Your task to perform on an android device: check the backup settings in the google photos Image 0: 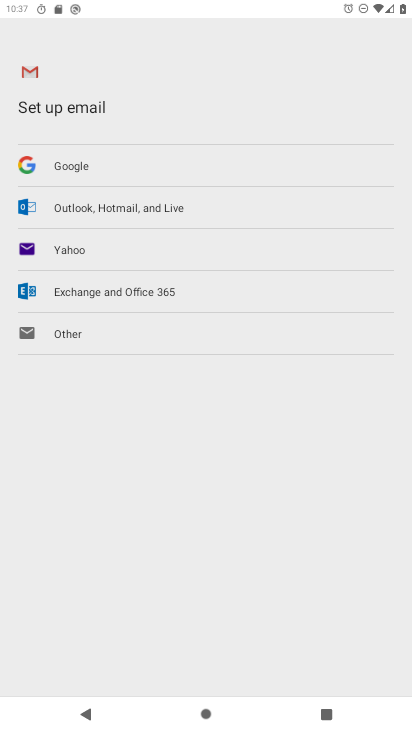
Step 0: press home button
Your task to perform on an android device: check the backup settings in the google photos Image 1: 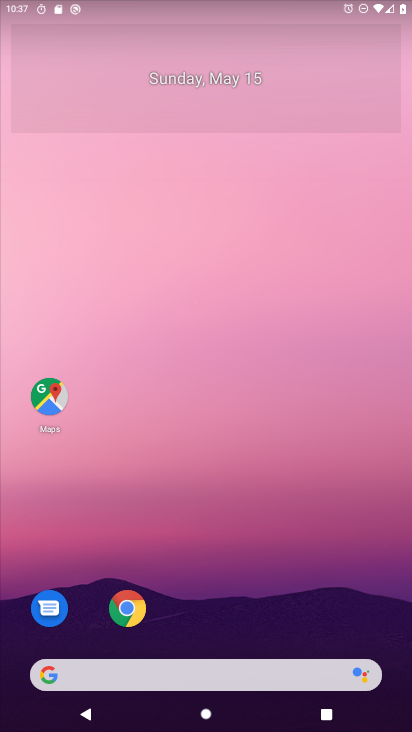
Step 1: drag from (334, 587) to (286, 220)
Your task to perform on an android device: check the backup settings in the google photos Image 2: 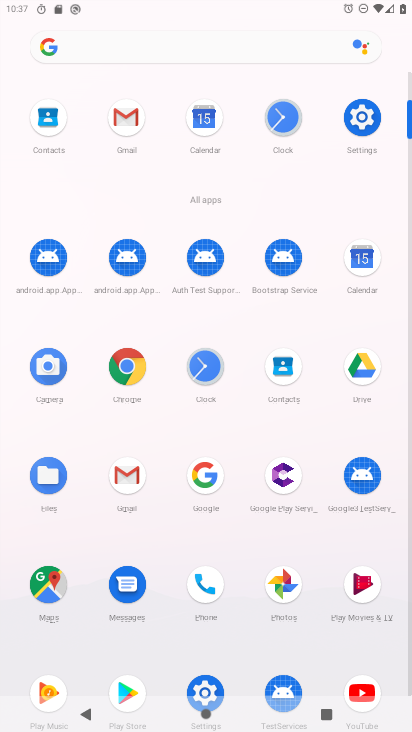
Step 2: click (277, 589)
Your task to perform on an android device: check the backup settings in the google photos Image 3: 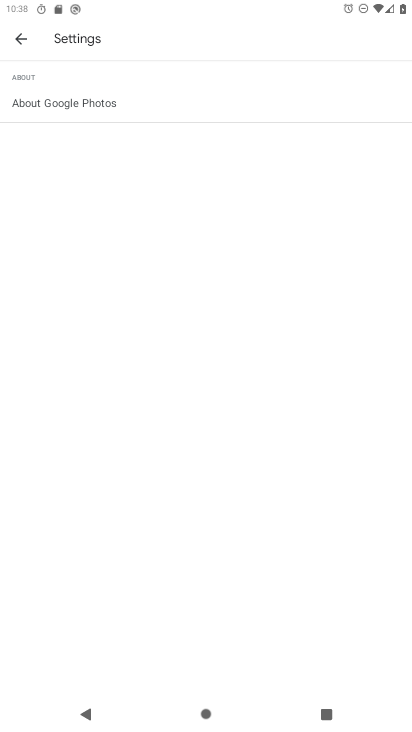
Step 3: click (23, 45)
Your task to perform on an android device: check the backup settings in the google photos Image 4: 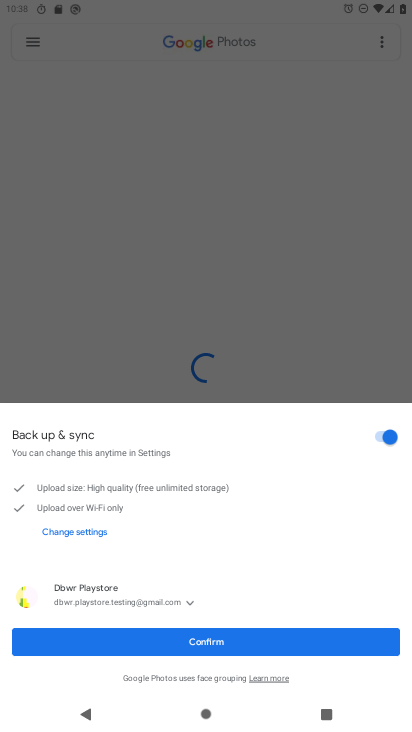
Step 4: click (207, 644)
Your task to perform on an android device: check the backup settings in the google photos Image 5: 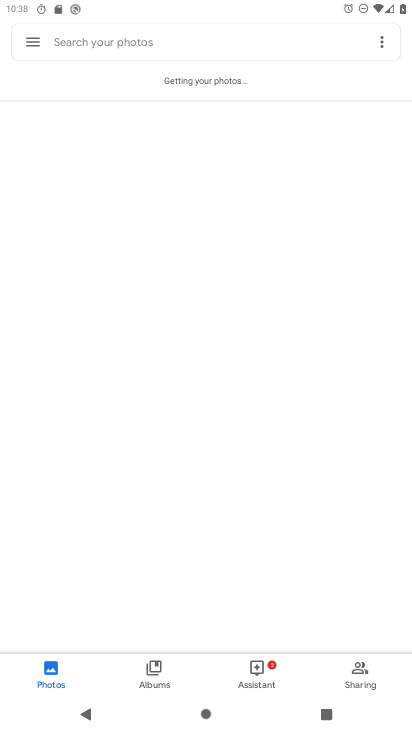
Step 5: click (42, 40)
Your task to perform on an android device: check the backup settings in the google photos Image 6: 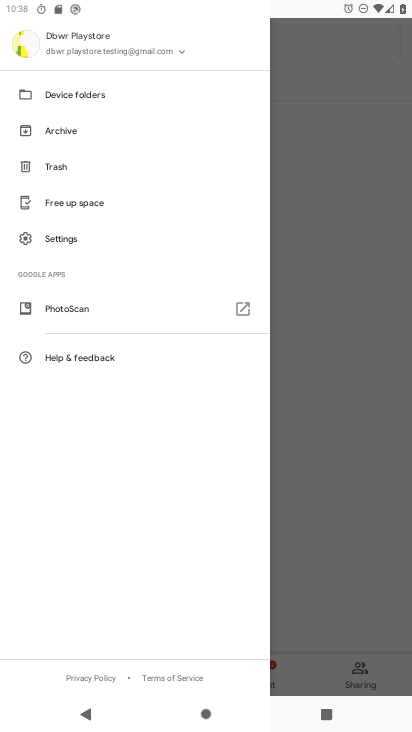
Step 6: click (68, 240)
Your task to perform on an android device: check the backup settings in the google photos Image 7: 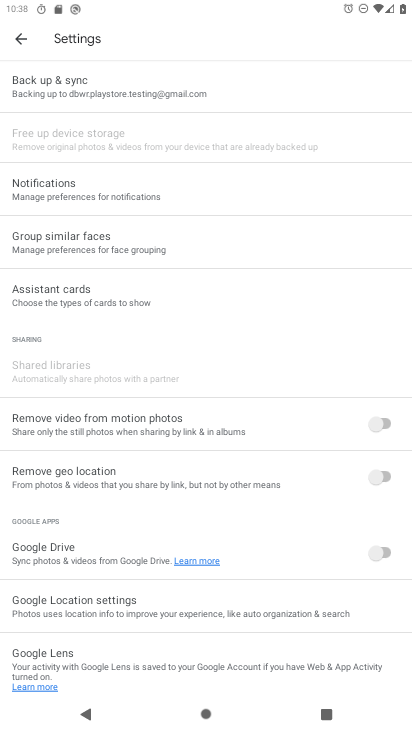
Step 7: click (134, 73)
Your task to perform on an android device: check the backup settings in the google photos Image 8: 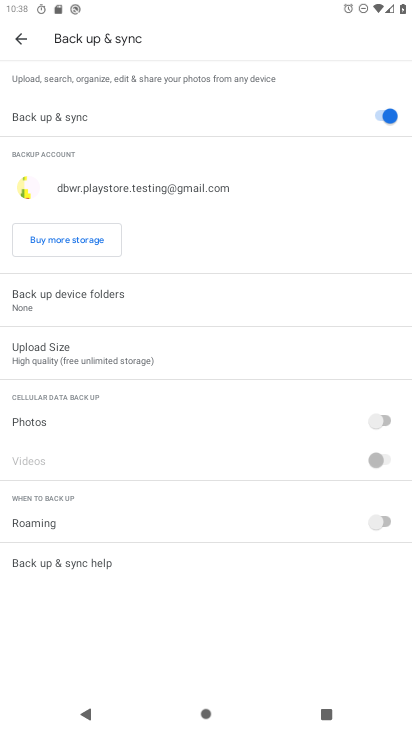
Step 8: task complete